Your task to perform on an android device: turn smart compose on in the gmail app Image 0: 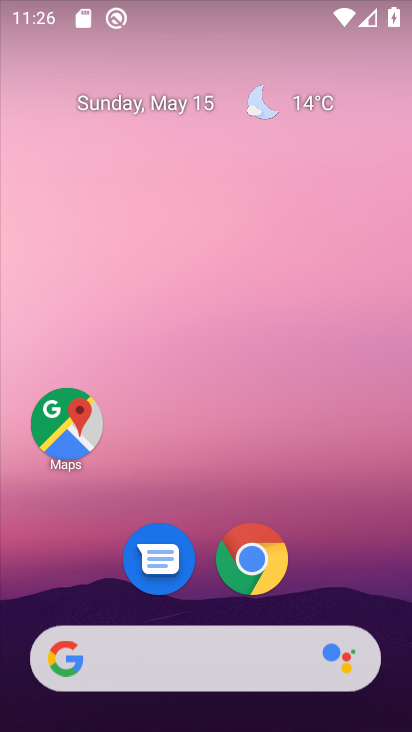
Step 0: drag from (381, 562) to (350, 110)
Your task to perform on an android device: turn smart compose on in the gmail app Image 1: 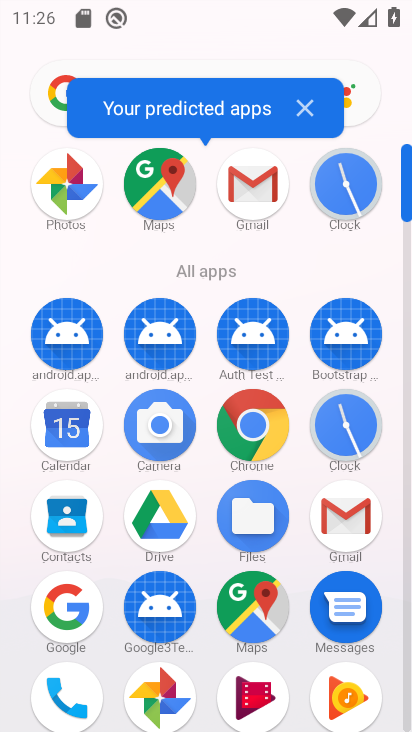
Step 1: click (339, 517)
Your task to perform on an android device: turn smart compose on in the gmail app Image 2: 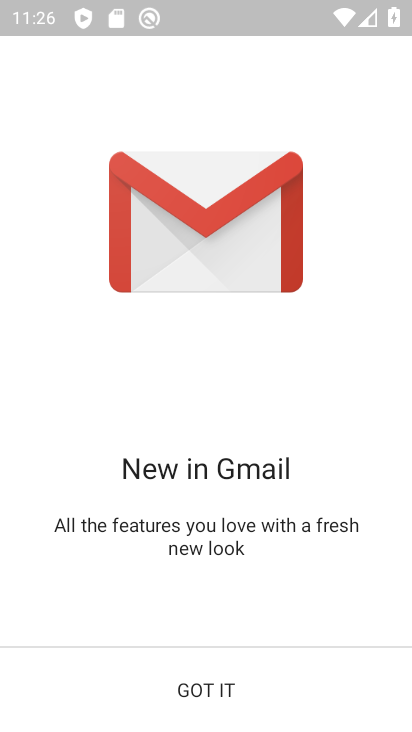
Step 2: click (227, 702)
Your task to perform on an android device: turn smart compose on in the gmail app Image 3: 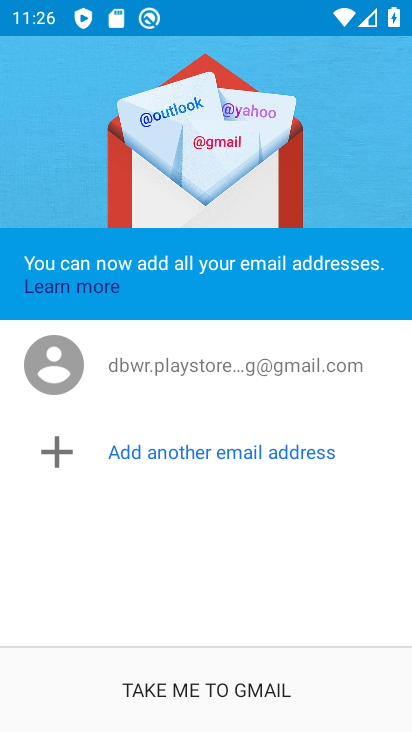
Step 3: click (228, 691)
Your task to perform on an android device: turn smart compose on in the gmail app Image 4: 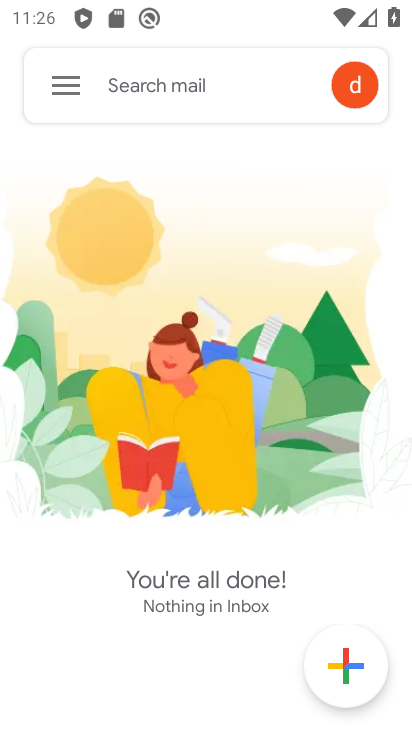
Step 4: click (72, 84)
Your task to perform on an android device: turn smart compose on in the gmail app Image 5: 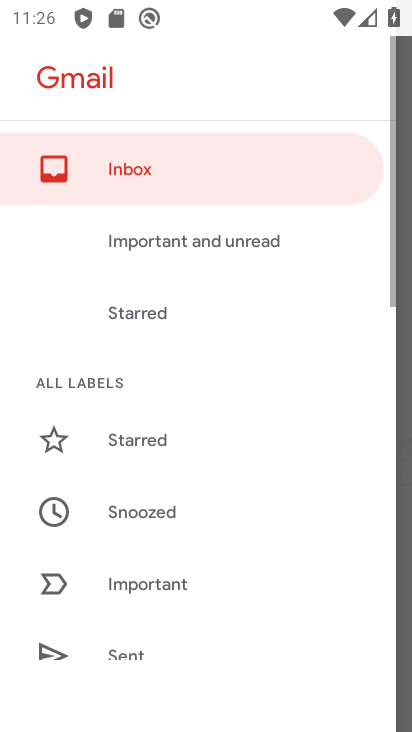
Step 5: drag from (235, 591) to (238, 215)
Your task to perform on an android device: turn smart compose on in the gmail app Image 6: 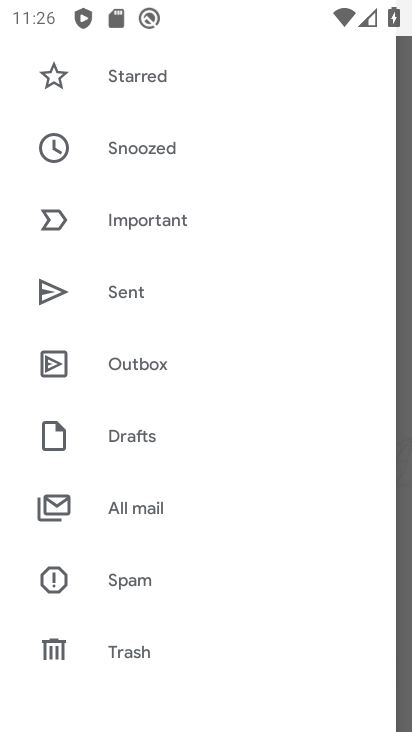
Step 6: drag from (235, 652) to (262, 197)
Your task to perform on an android device: turn smart compose on in the gmail app Image 7: 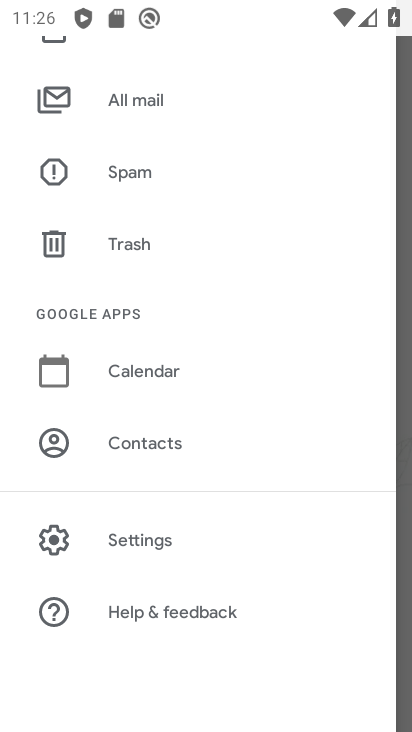
Step 7: click (169, 526)
Your task to perform on an android device: turn smart compose on in the gmail app Image 8: 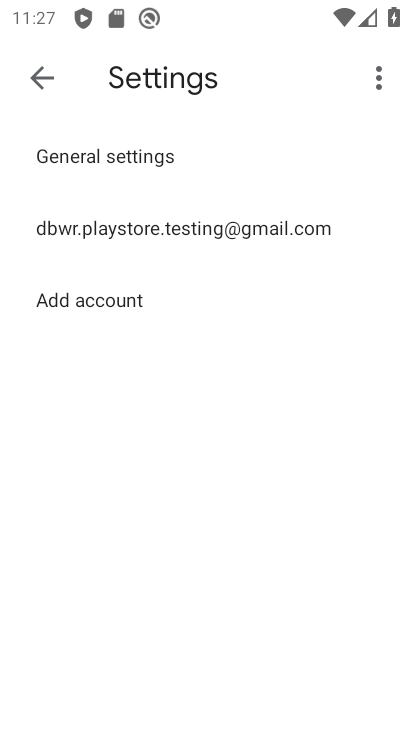
Step 8: click (220, 231)
Your task to perform on an android device: turn smart compose on in the gmail app Image 9: 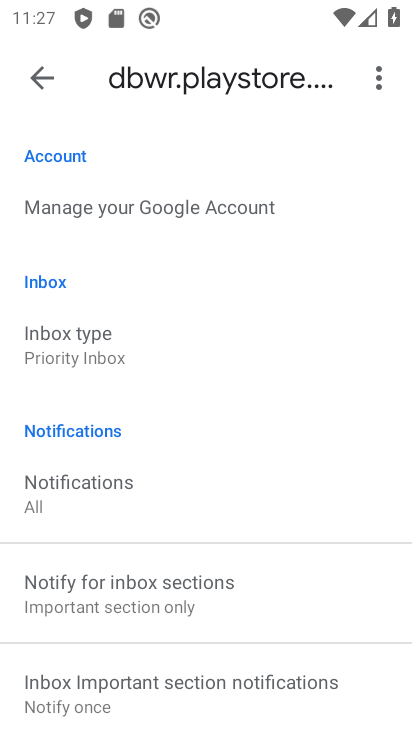
Step 9: click (294, 312)
Your task to perform on an android device: turn smart compose on in the gmail app Image 10: 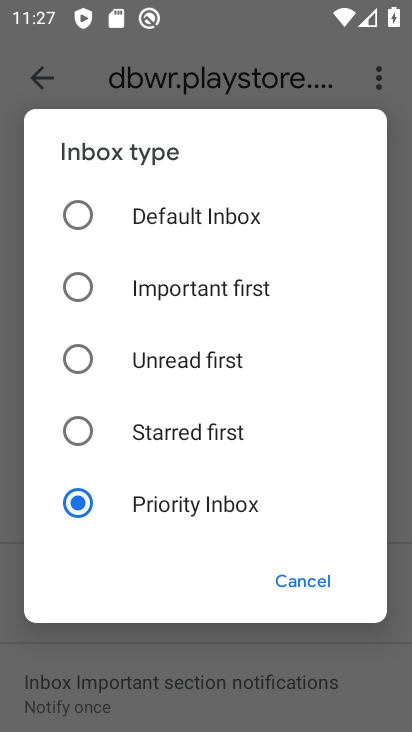
Step 10: click (304, 589)
Your task to perform on an android device: turn smart compose on in the gmail app Image 11: 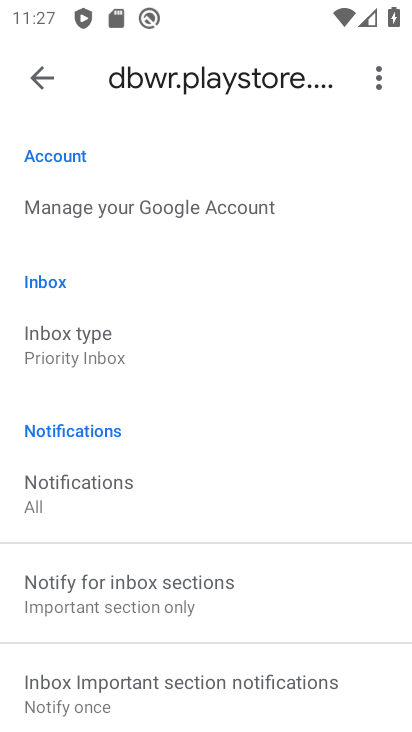
Step 11: task complete